Your task to perform on an android device: check google app version Image 0: 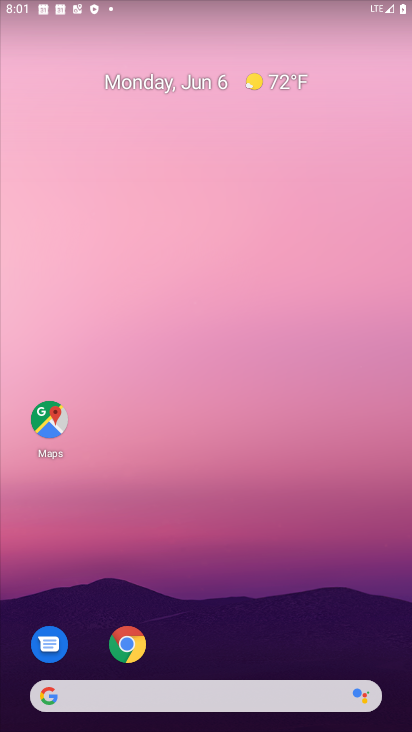
Step 0: click (320, 150)
Your task to perform on an android device: check google app version Image 1: 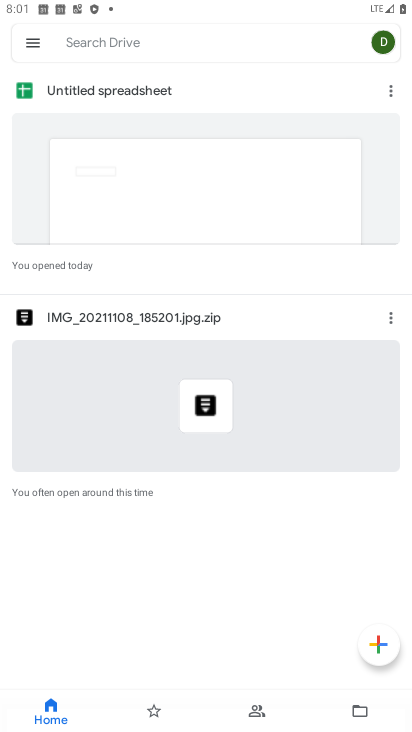
Step 1: press home button
Your task to perform on an android device: check google app version Image 2: 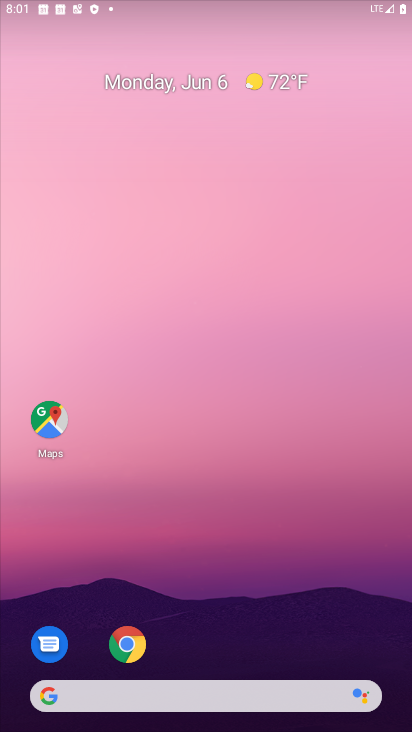
Step 2: drag from (252, 712) to (275, 258)
Your task to perform on an android device: check google app version Image 3: 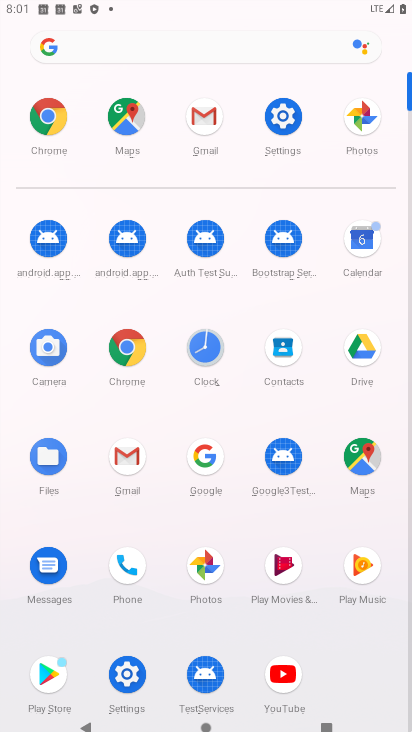
Step 3: click (43, 118)
Your task to perform on an android device: check google app version Image 4: 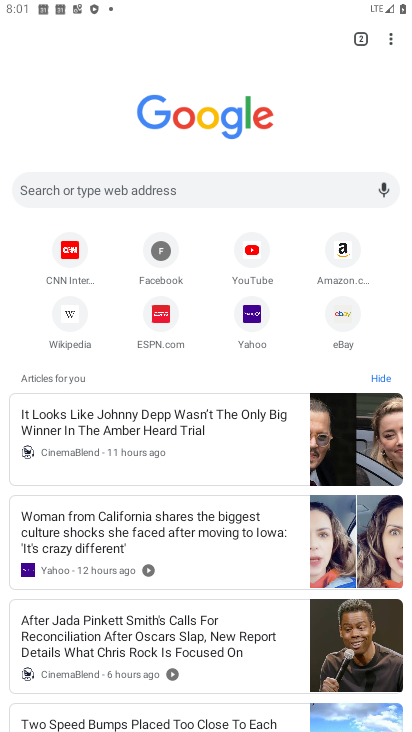
Step 4: click (391, 34)
Your task to perform on an android device: check google app version Image 5: 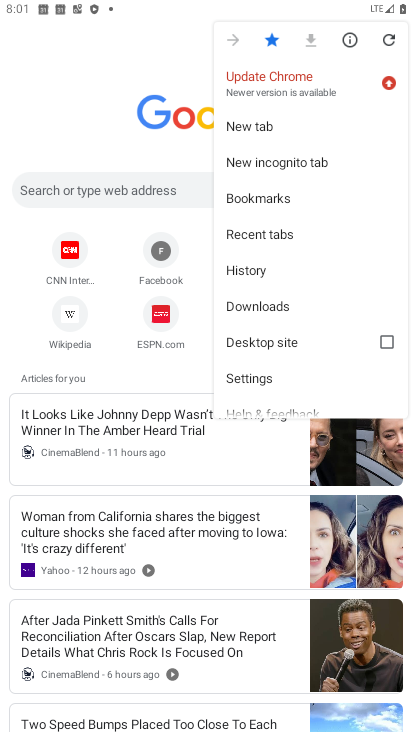
Step 5: click (261, 378)
Your task to perform on an android device: check google app version Image 6: 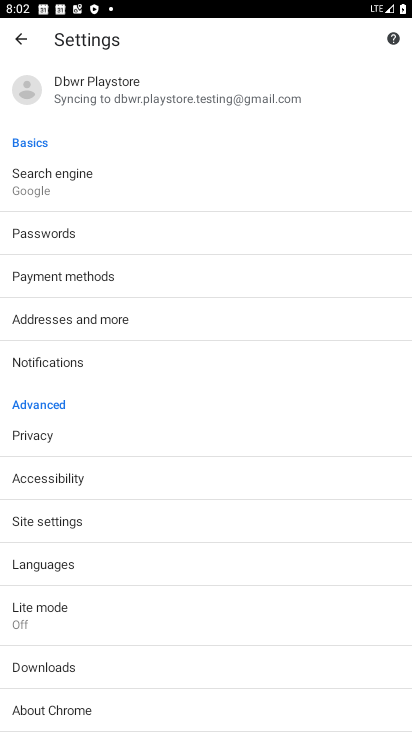
Step 6: click (79, 713)
Your task to perform on an android device: check google app version Image 7: 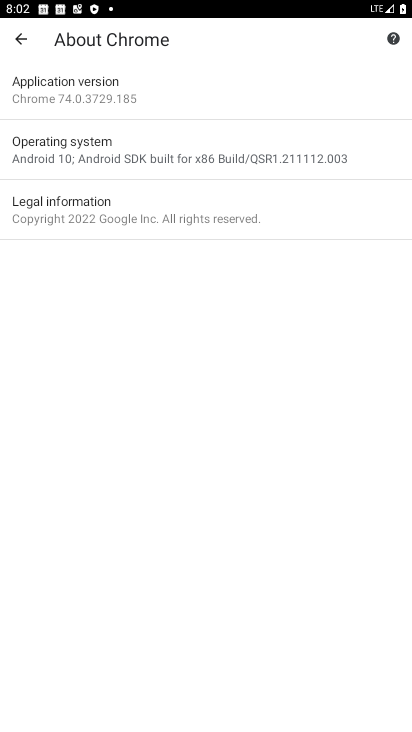
Step 7: click (71, 84)
Your task to perform on an android device: check google app version Image 8: 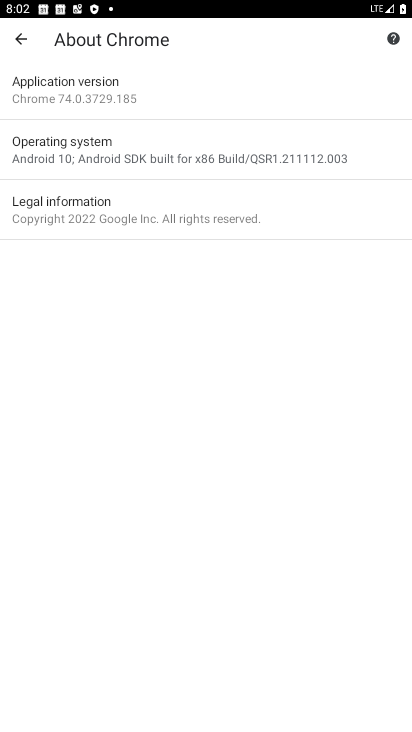
Step 8: task complete